Your task to perform on an android device: What's the weather? Image 0: 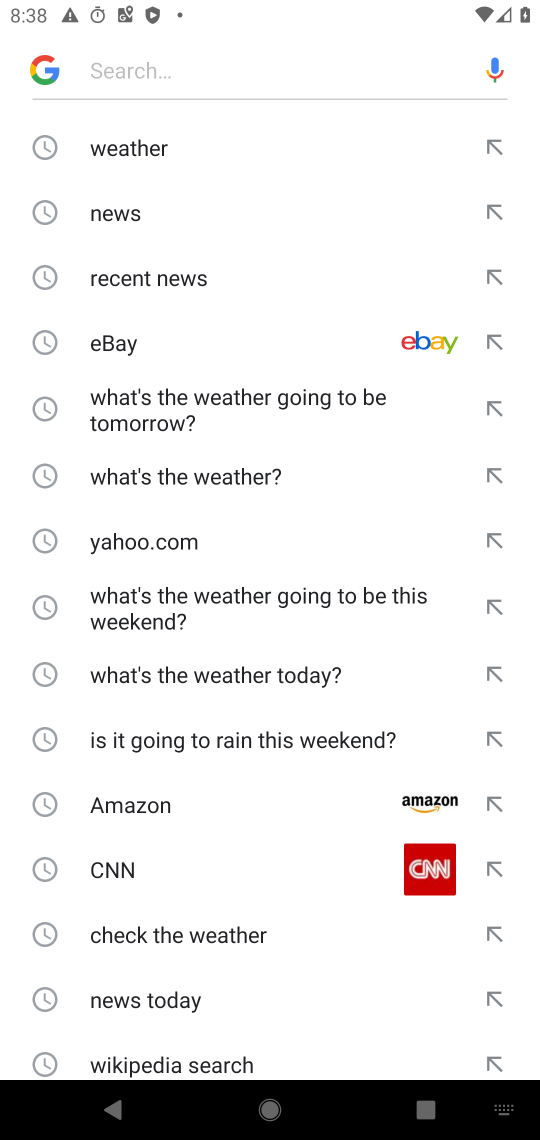
Step 0: press home button
Your task to perform on an android device: What's the weather? Image 1: 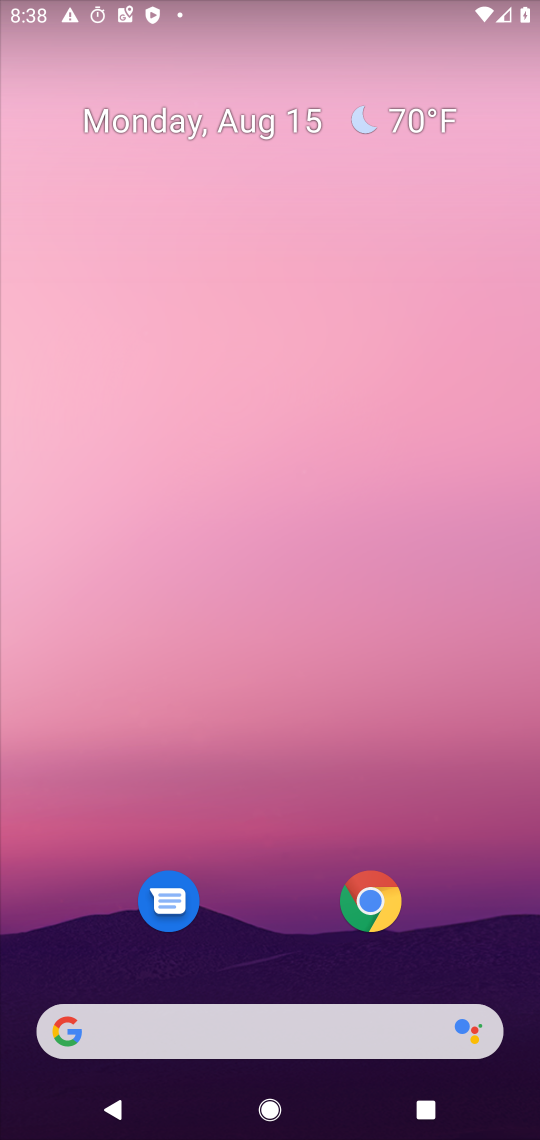
Step 1: click (273, 1039)
Your task to perform on an android device: What's the weather? Image 2: 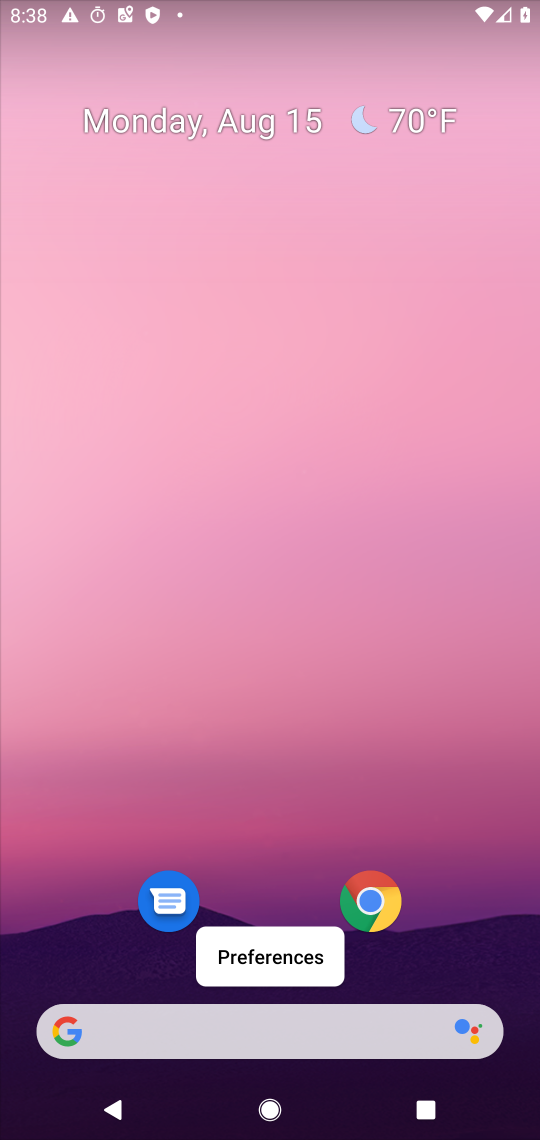
Step 2: click (265, 1032)
Your task to perform on an android device: What's the weather? Image 3: 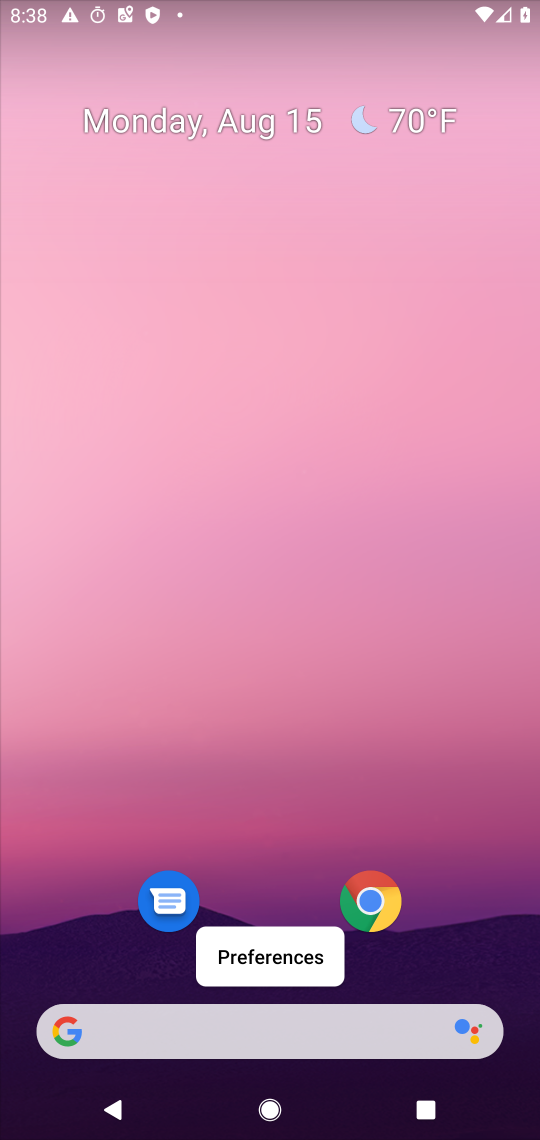
Step 3: click (265, 1026)
Your task to perform on an android device: What's the weather? Image 4: 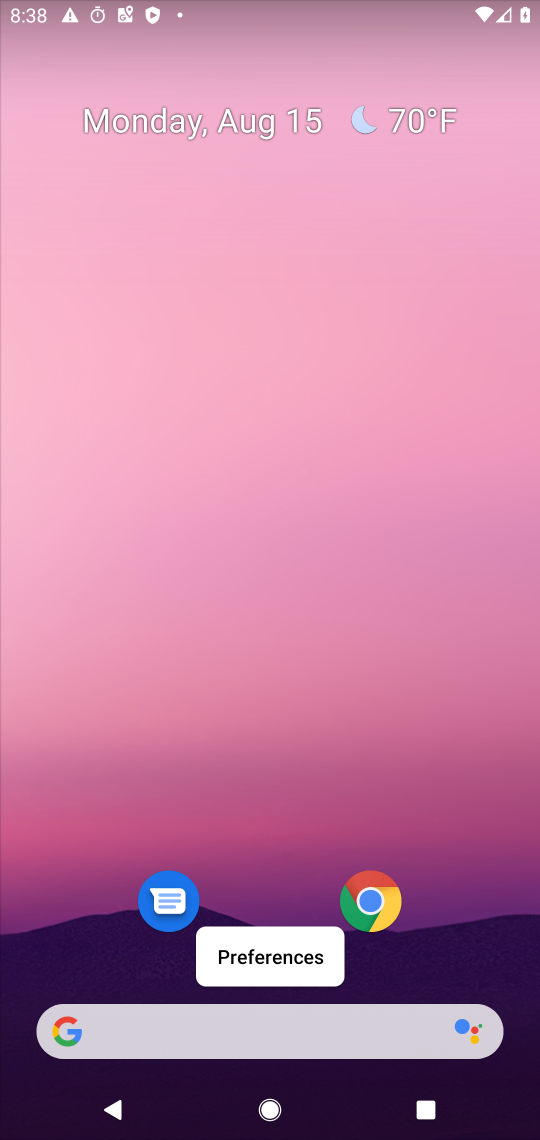
Step 4: click (210, 1007)
Your task to perform on an android device: What's the weather? Image 5: 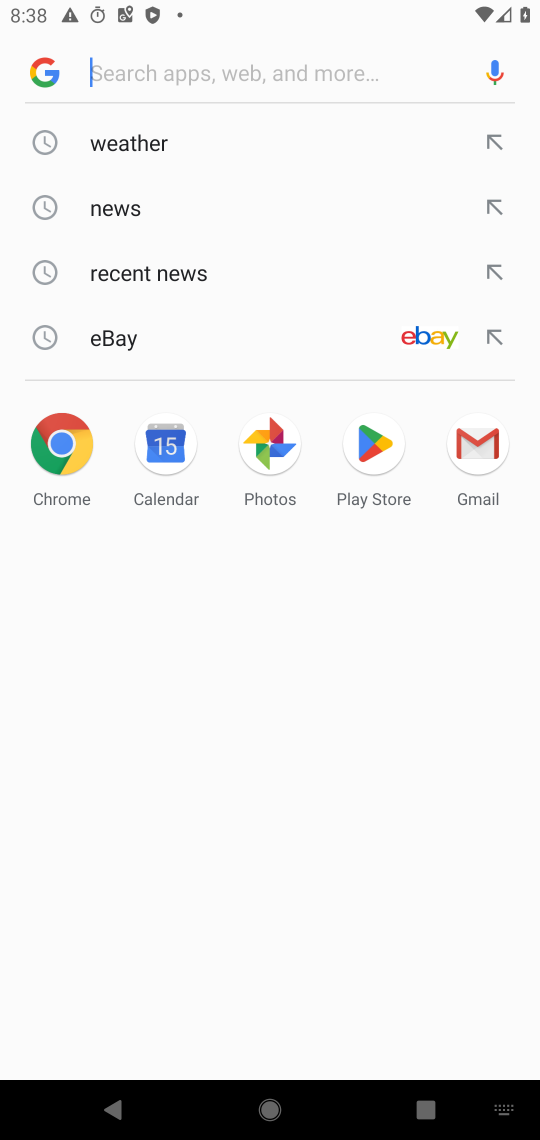
Step 5: click (134, 138)
Your task to perform on an android device: What's the weather? Image 6: 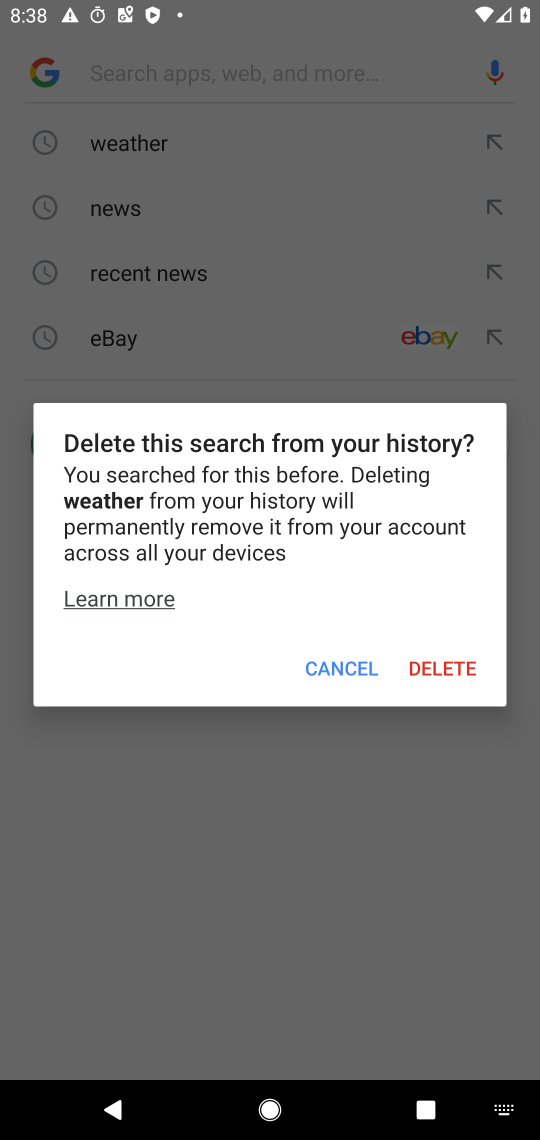
Step 6: click (345, 660)
Your task to perform on an android device: What's the weather? Image 7: 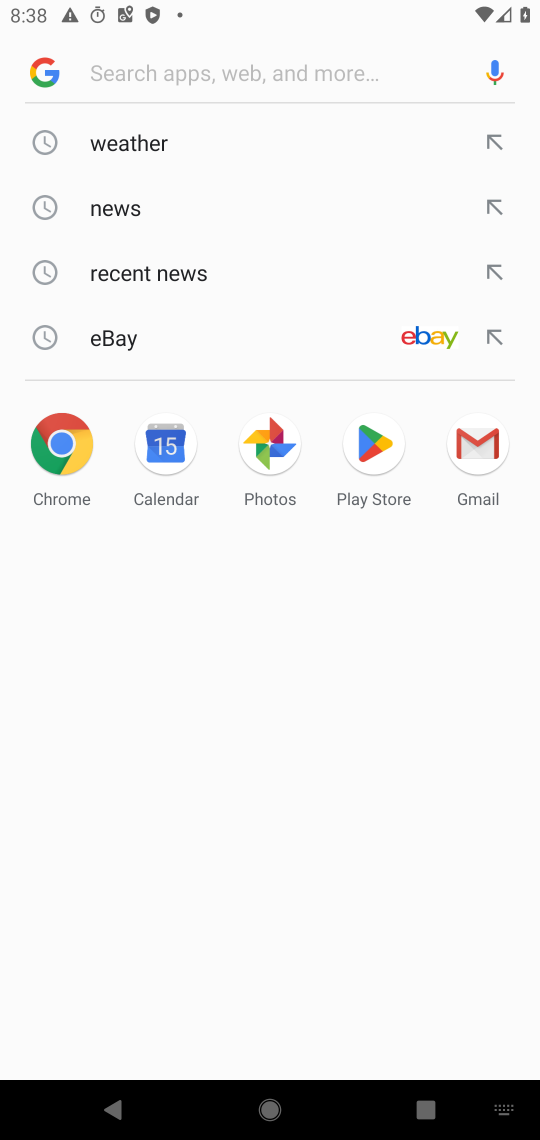
Step 7: click (87, 142)
Your task to perform on an android device: What's the weather? Image 8: 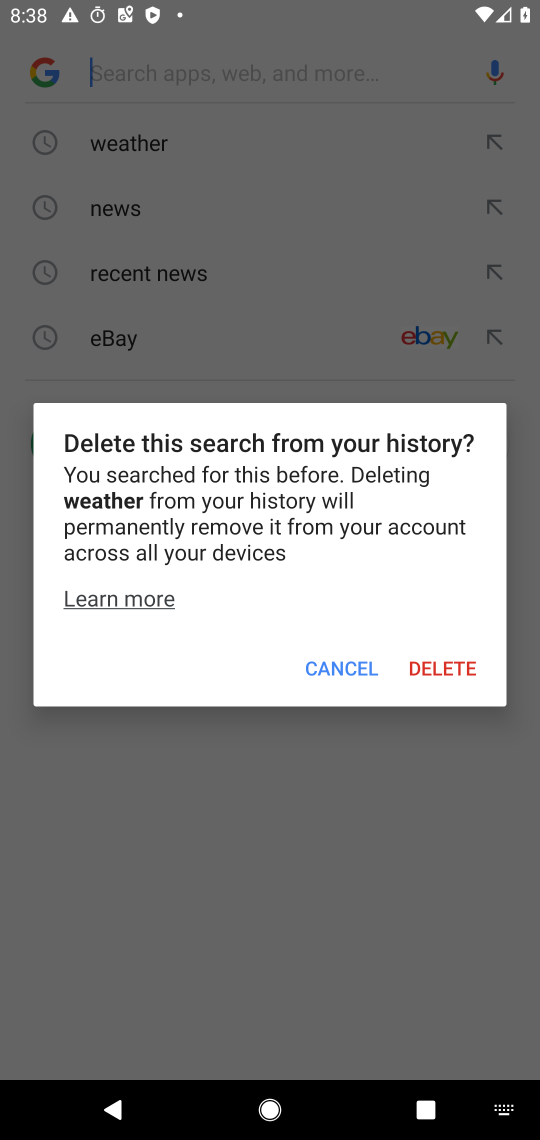
Step 8: click (347, 663)
Your task to perform on an android device: What's the weather? Image 9: 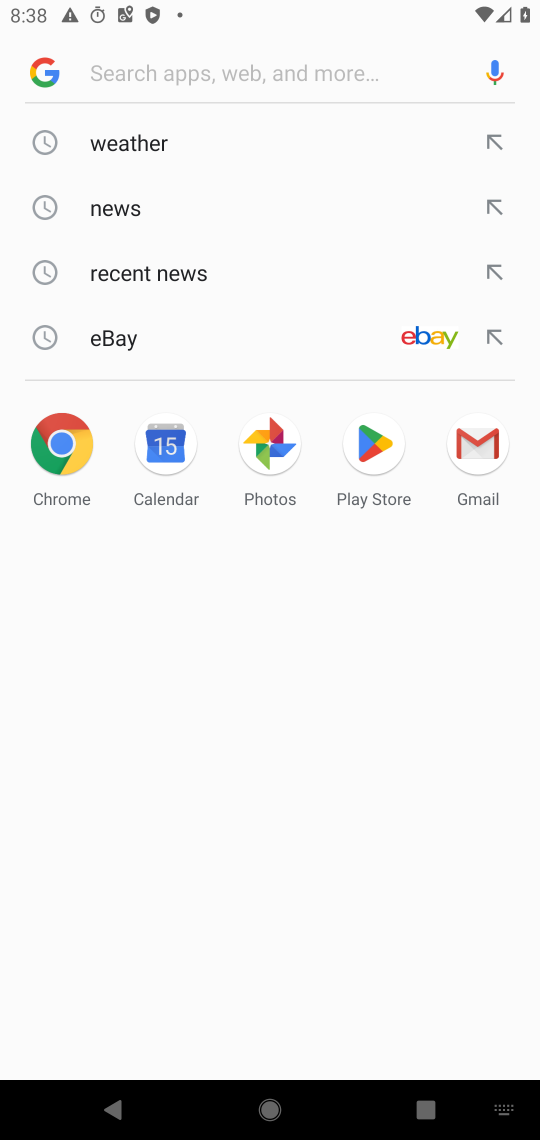
Step 9: press back button
Your task to perform on an android device: What's the weather? Image 10: 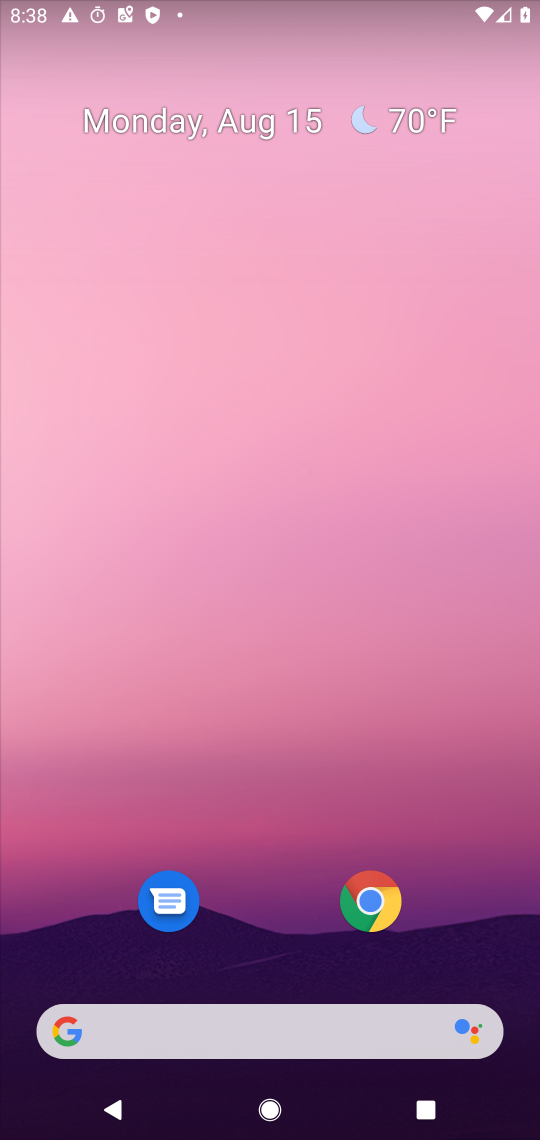
Step 10: click (411, 117)
Your task to perform on an android device: What's the weather? Image 11: 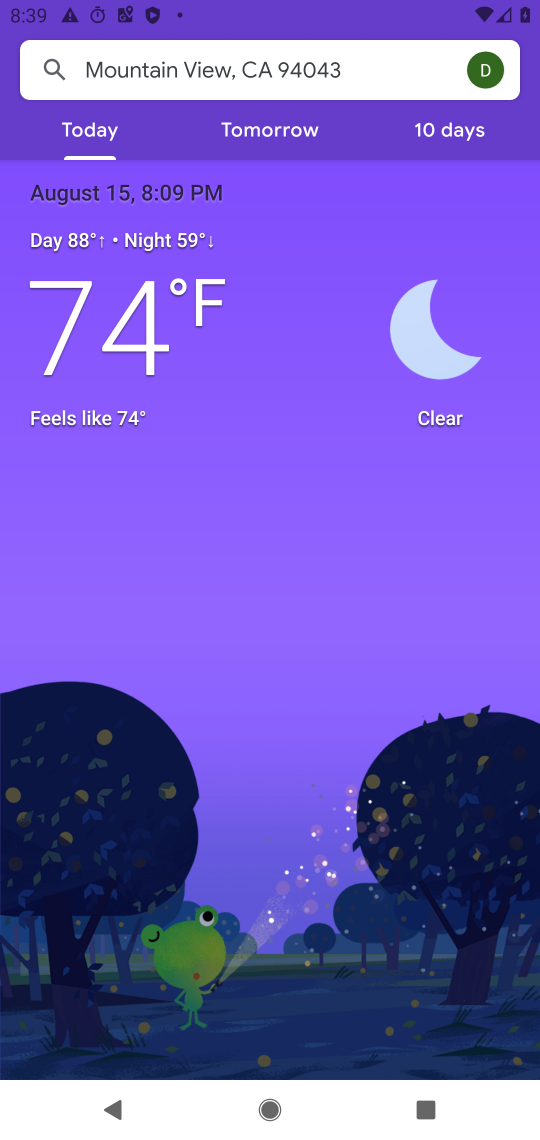
Step 11: task complete